Your task to perform on an android device: What's the weather going to be tomorrow? Image 0: 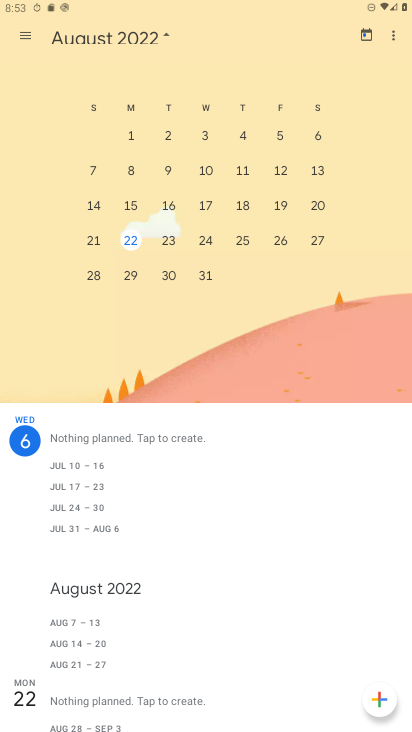
Step 0: press home button
Your task to perform on an android device: What's the weather going to be tomorrow? Image 1: 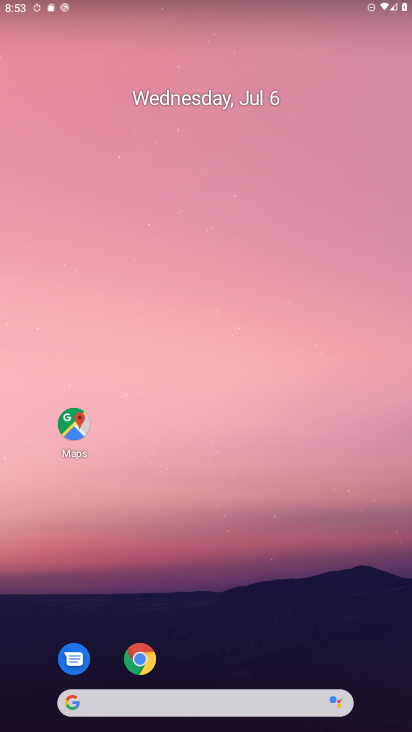
Step 1: click (253, 696)
Your task to perform on an android device: What's the weather going to be tomorrow? Image 2: 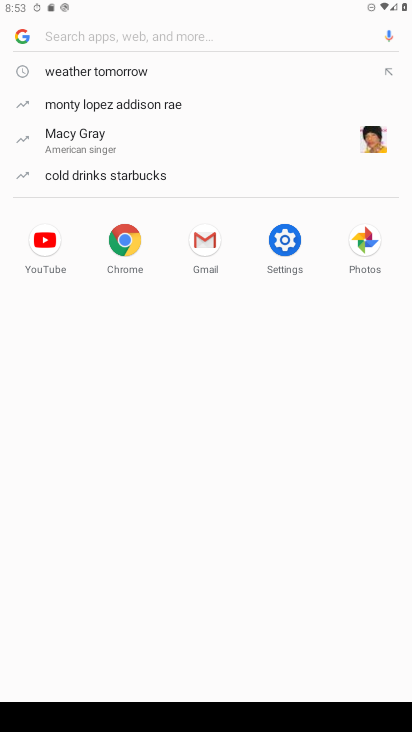
Step 2: click (157, 72)
Your task to perform on an android device: What's the weather going to be tomorrow? Image 3: 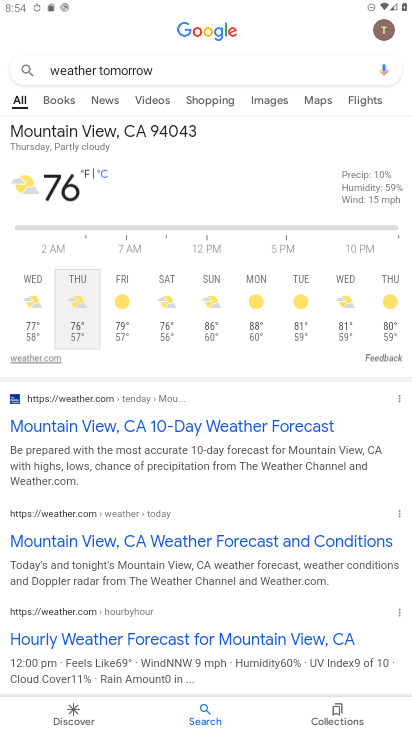
Step 3: task complete